Your task to perform on an android device: Go to Amazon Image 0: 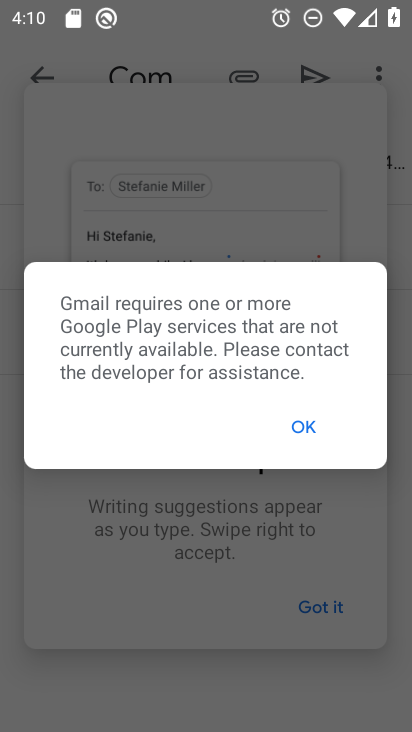
Step 0: press home button
Your task to perform on an android device: Go to Amazon Image 1: 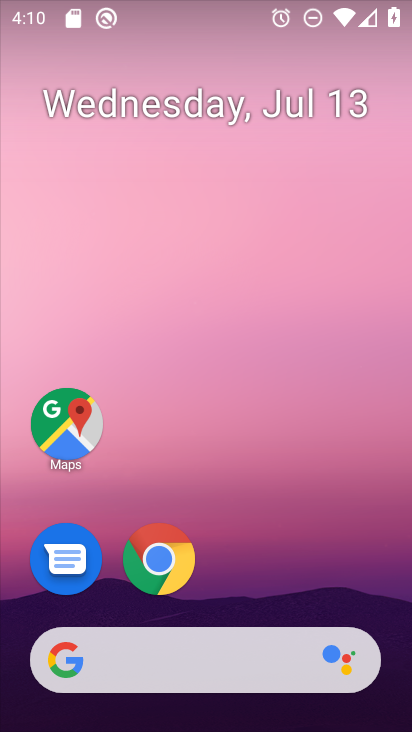
Step 1: drag from (363, 592) to (365, 88)
Your task to perform on an android device: Go to Amazon Image 2: 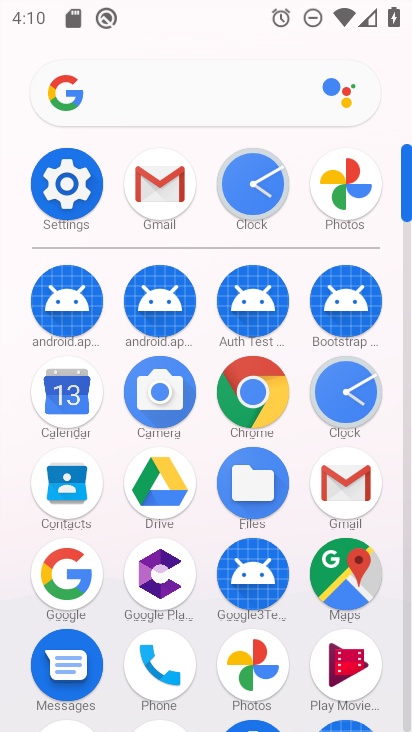
Step 2: click (267, 393)
Your task to perform on an android device: Go to Amazon Image 3: 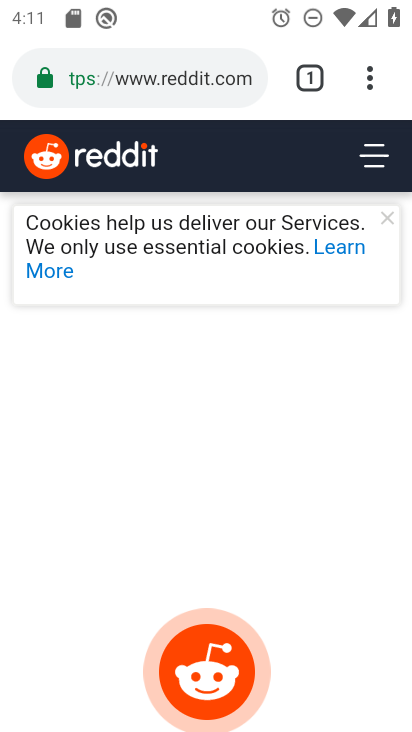
Step 3: click (213, 91)
Your task to perform on an android device: Go to Amazon Image 4: 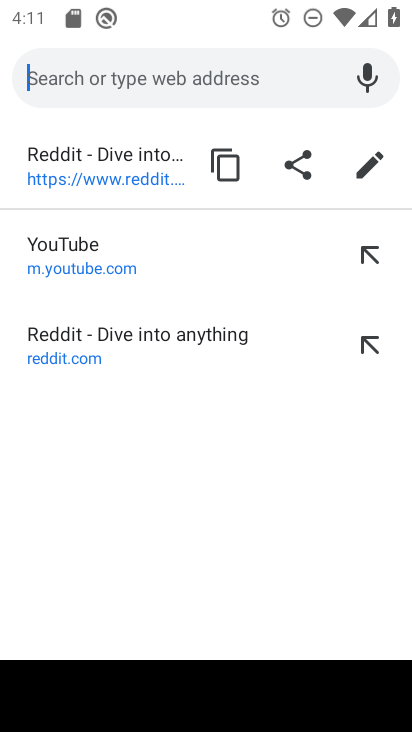
Step 4: type "amazon"
Your task to perform on an android device: Go to Amazon Image 5: 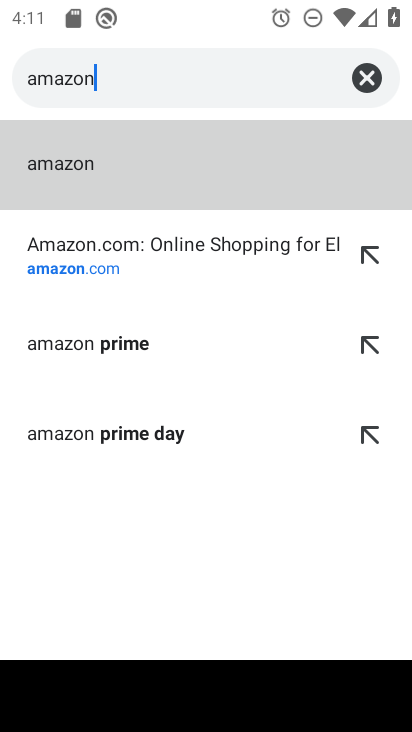
Step 5: click (244, 169)
Your task to perform on an android device: Go to Amazon Image 6: 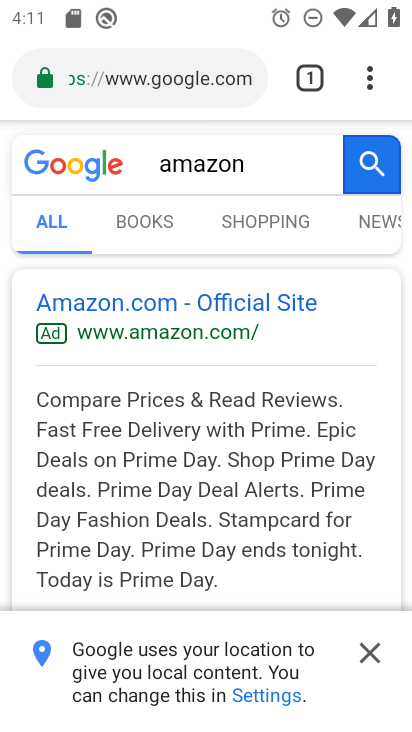
Step 6: task complete